Your task to perform on an android device: open a bookmark in the chrome app Image 0: 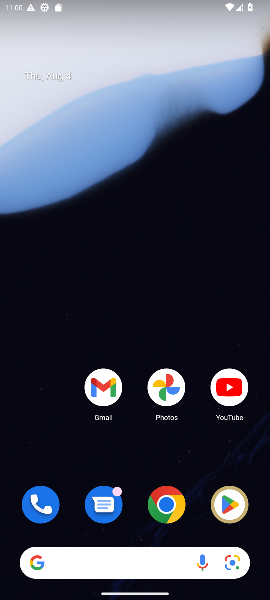
Step 0: drag from (182, 468) to (152, 77)
Your task to perform on an android device: open a bookmark in the chrome app Image 1: 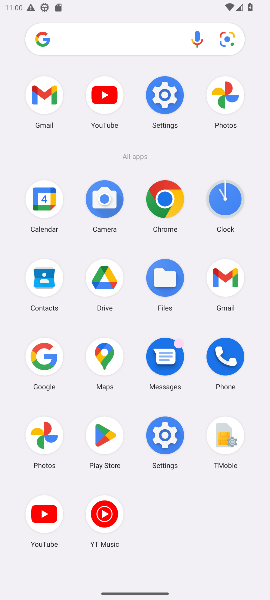
Step 1: click (162, 208)
Your task to perform on an android device: open a bookmark in the chrome app Image 2: 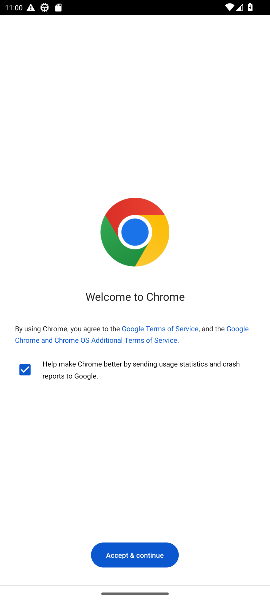
Step 2: click (133, 561)
Your task to perform on an android device: open a bookmark in the chrome app Image 3: 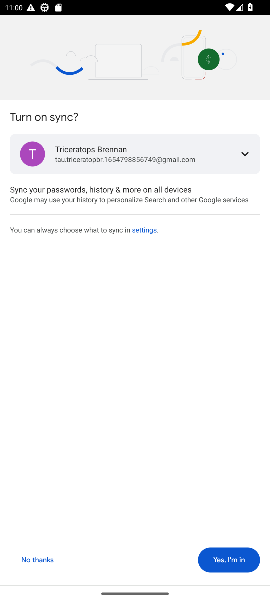
Step 3: click (227, 559)
Your task to perform on an android device: open a bookmark in the chrome app Image 4: 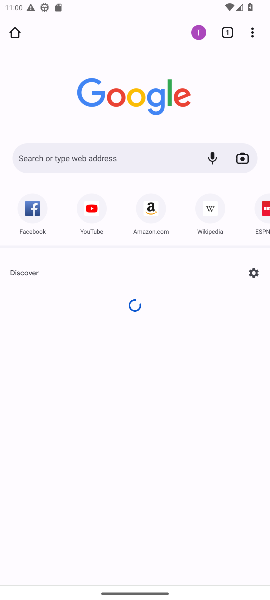
Step 4: click (252, 36)
Your task to perform on an android device: open a bookmark in the chrome app Image 5: 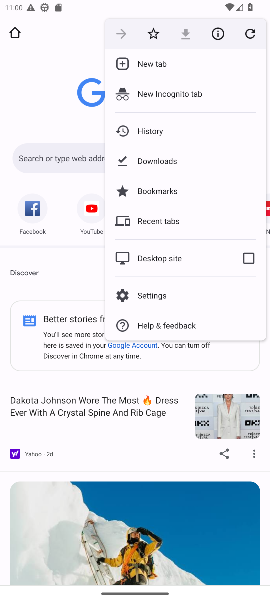
Step 5: click (159, 189)
Your task to perform on an android device: open a bookmark in the chrome app Image 6: 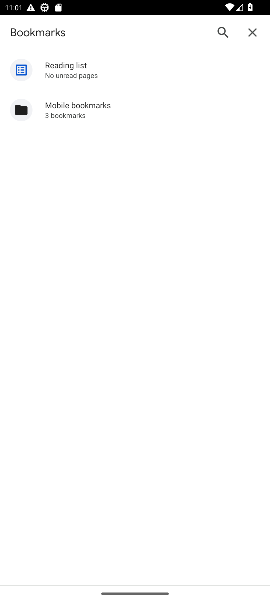
Step 6: task complete